Your task to perform on an android device: open app "Clock" (install if not already installed) Image 0: 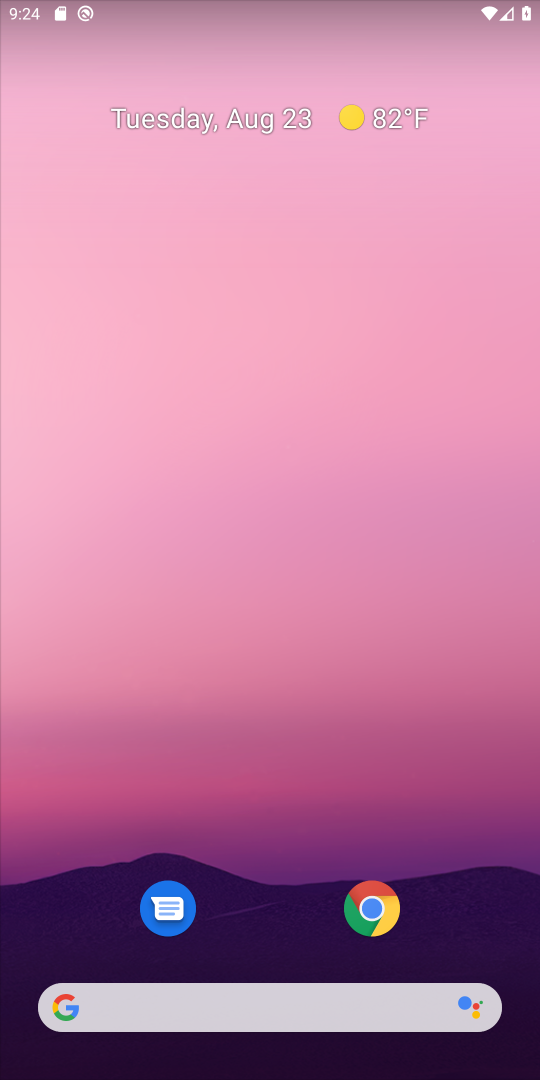
Step 0: drag from (263, 955) to (280, 91)
Your task to perform on an android device: open app "Clock" (install if not already installed) Image 1: 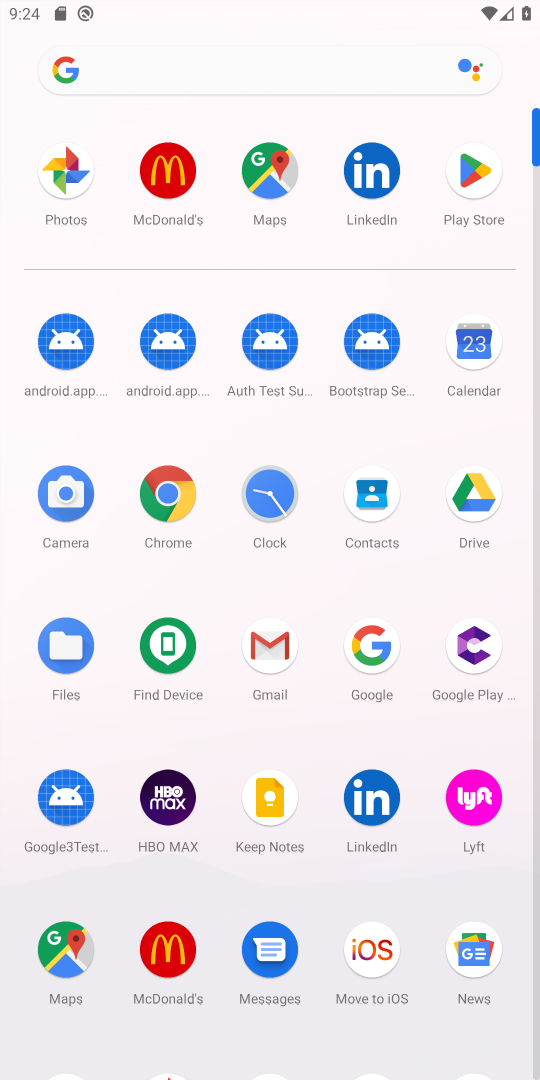
Step 1: click (490, 164)
Your task to perform on an android device: open app "Clock" (install if not already installed) Image 2: 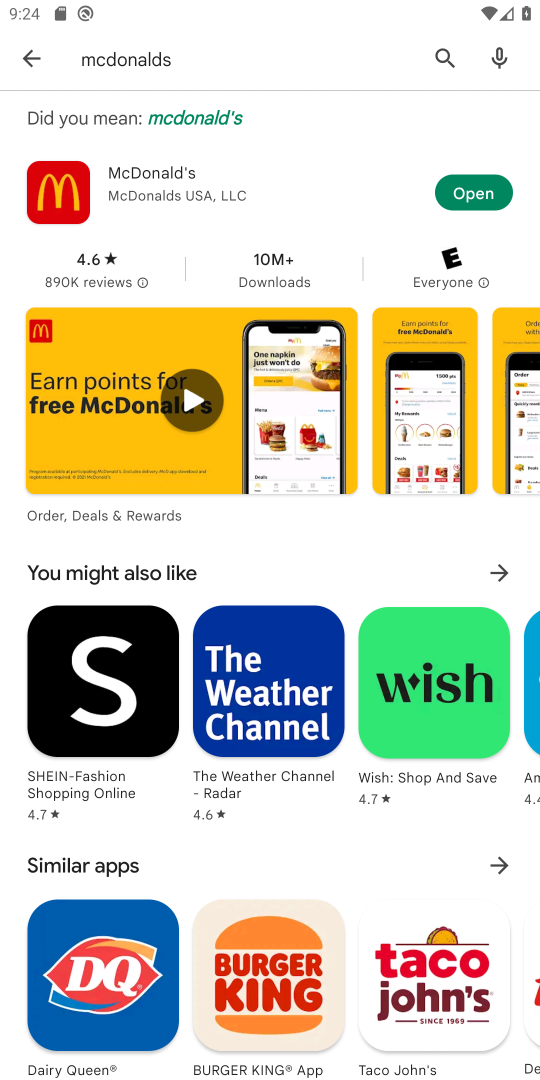
Step 2: click (223, 66)
Your task to perform on an android device: open app "Clock" (install if not already installed) Image 3: 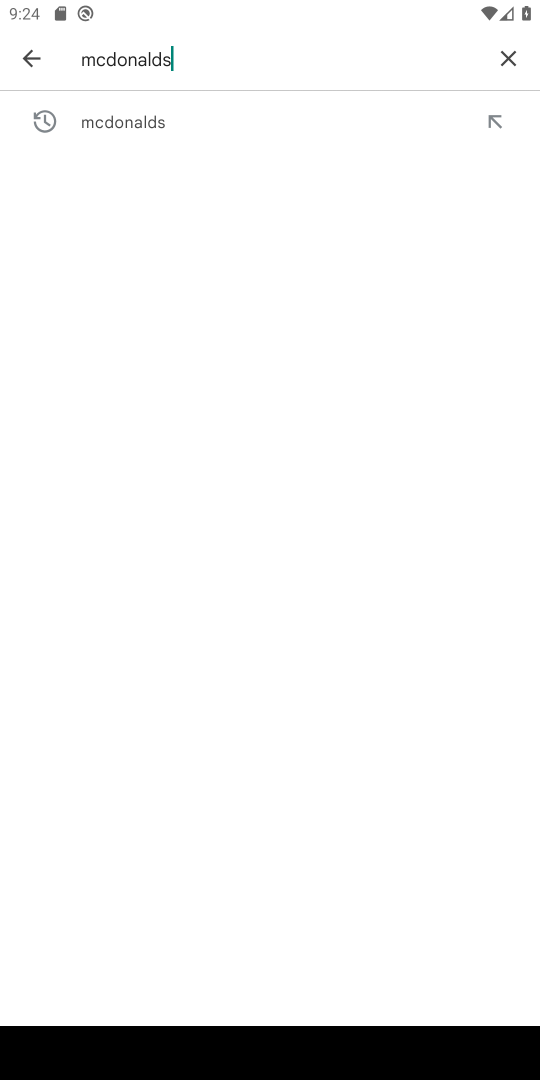
Step 3: press home button
Your task to perform on an android device: open app "Clock" (install if not already installed) Image 4: 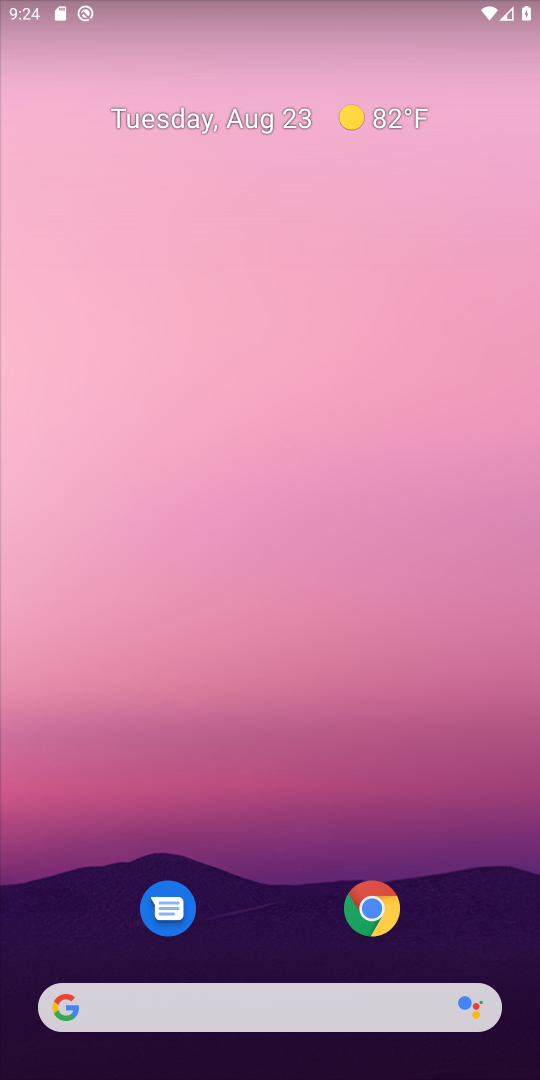
Step 4: drag from (192, 814) to (255, 5)
Your task to perform on an android device: open app "Clock" (install if not already installed) Image 5: 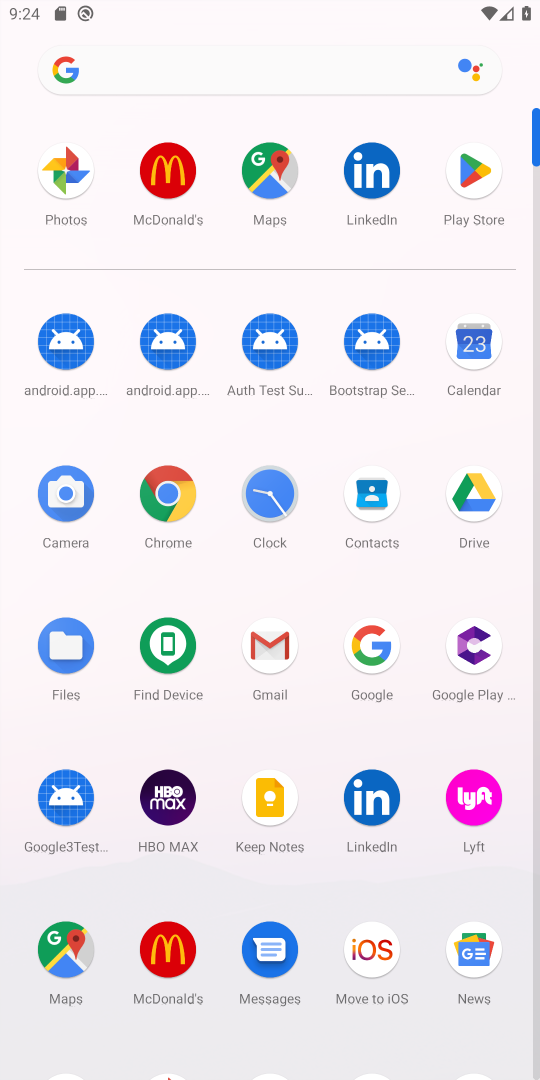
Step 5: click (271, 498)
Your task to perform on an android device: open app "Clock" (install if not already installed) Image 6: 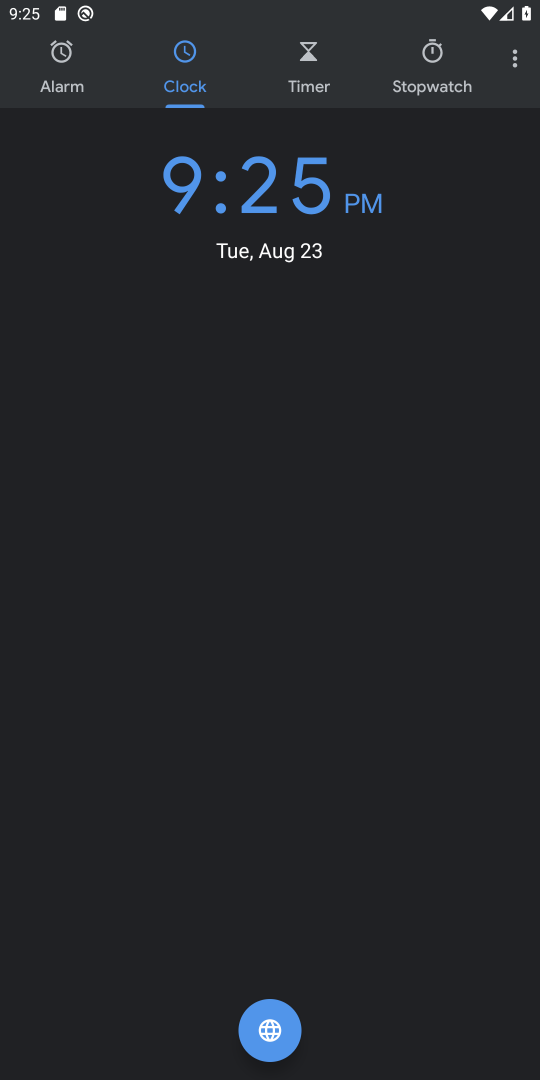
Step 6: task complete